Your task to perform on an android device: Search for razer nari on amazon, select the first entry, and add it to the cart. Image 0: 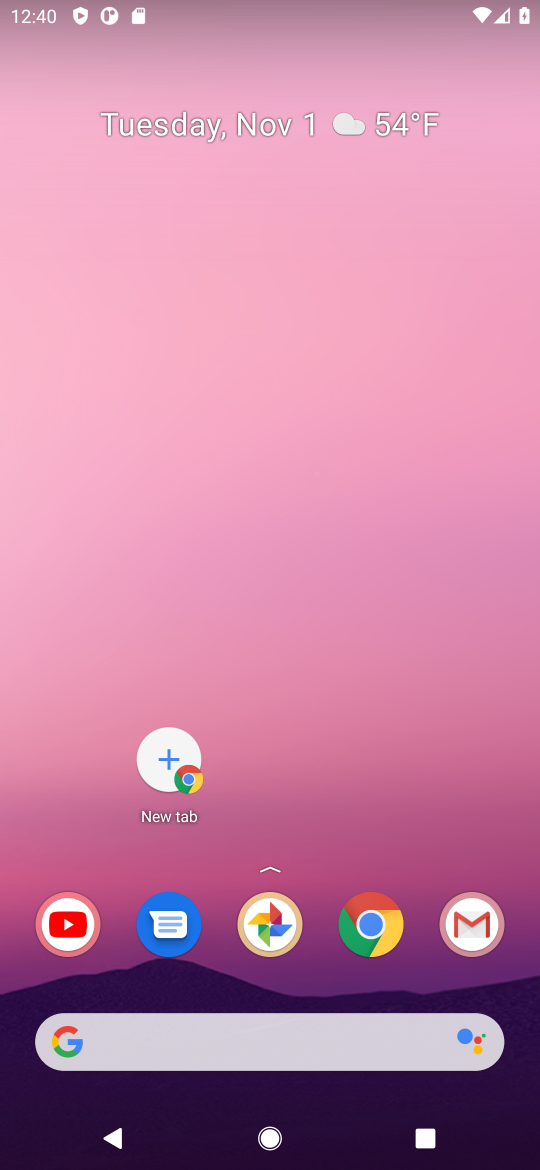
Step 0: click (364, 935)
Your task to perform on an android device: Search for razer nari on amazon, select the first entry, and add it to the cart. Image 1: 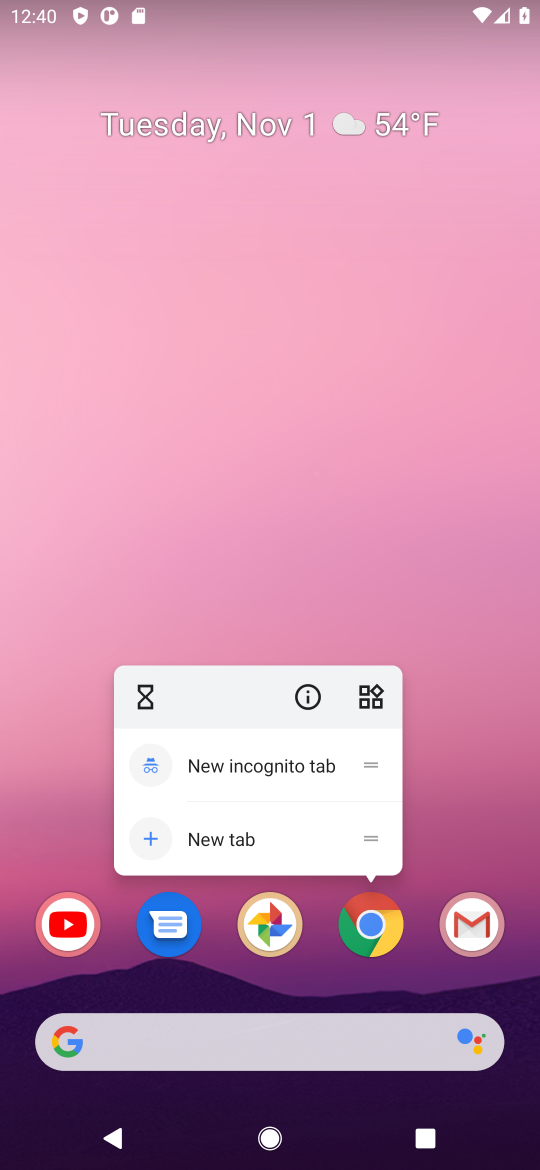
Step 1: click (364, 935)
Your task to perform on an android device: Search for razer nari on amazon, select the first entry, and add it to the cart. Image 2: 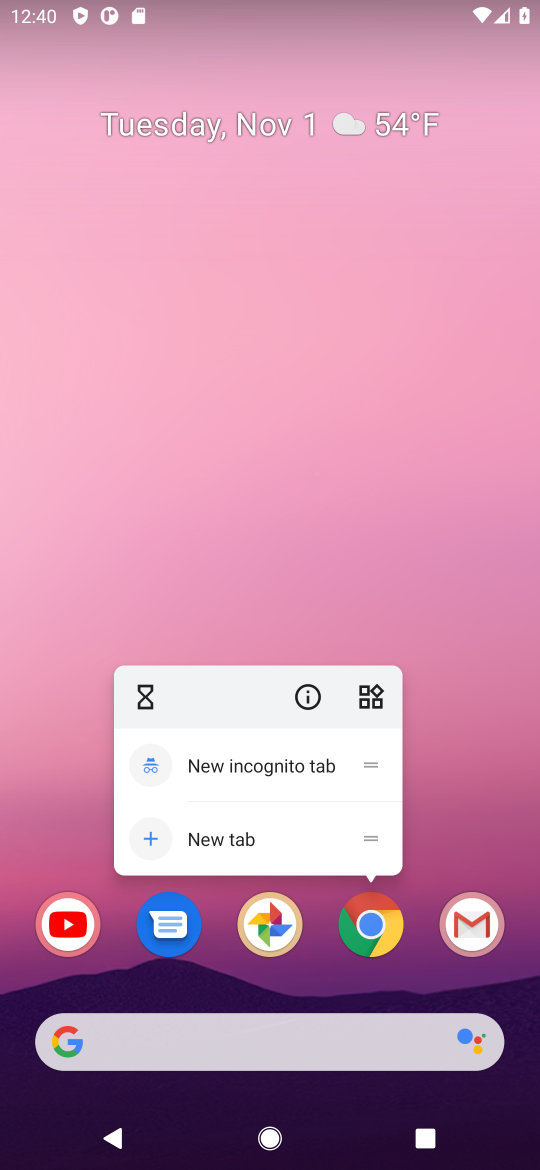
Step 2: click (367, 935)
Your task to perform on an android device: Search for razer nari on amazon, select the first entry, and add it to the cart. Image 3: 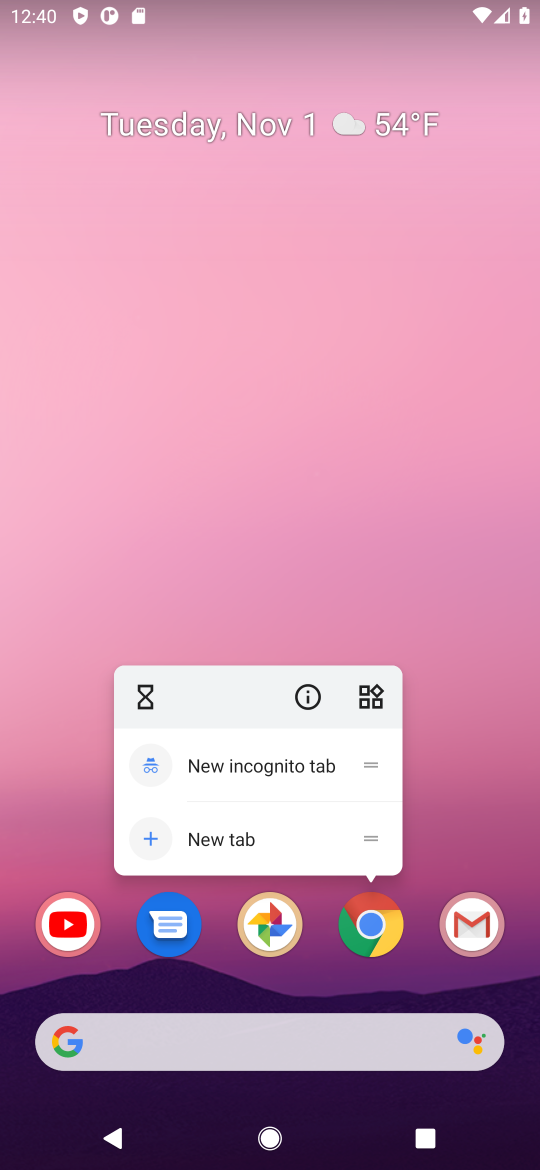
Step 3: click (370, 938)
Your task to perform on an android device: Search for razer nari on amazon, select the first entry, and add it to the cart. Image 4: 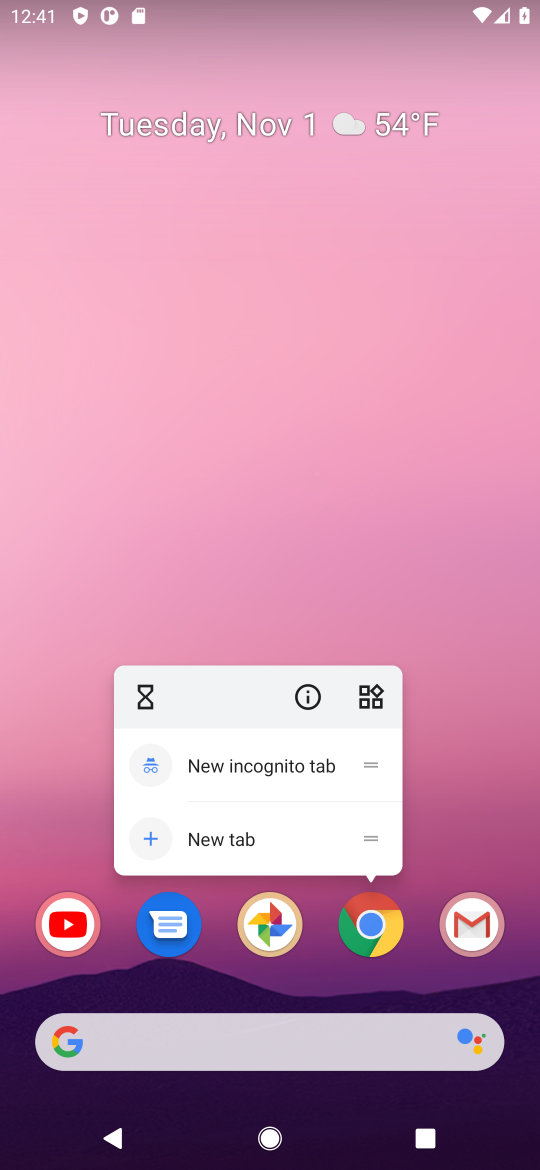
Step 4: click (370, 938)
Your task to perform on an android device: Search for razer nari on amazon, select the first entry, and add it to the cart. Image 5: 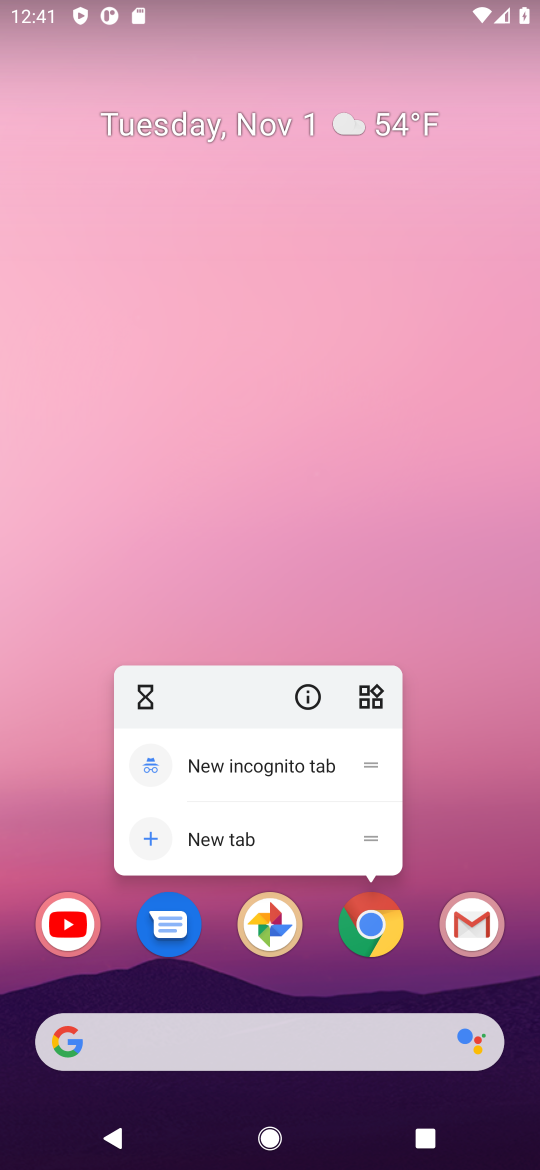
Step 5: click (368, 938)
Your task to perform on an android device: Search for razer nari on amazon, select the first entry, and add it to the cart. Image 6: 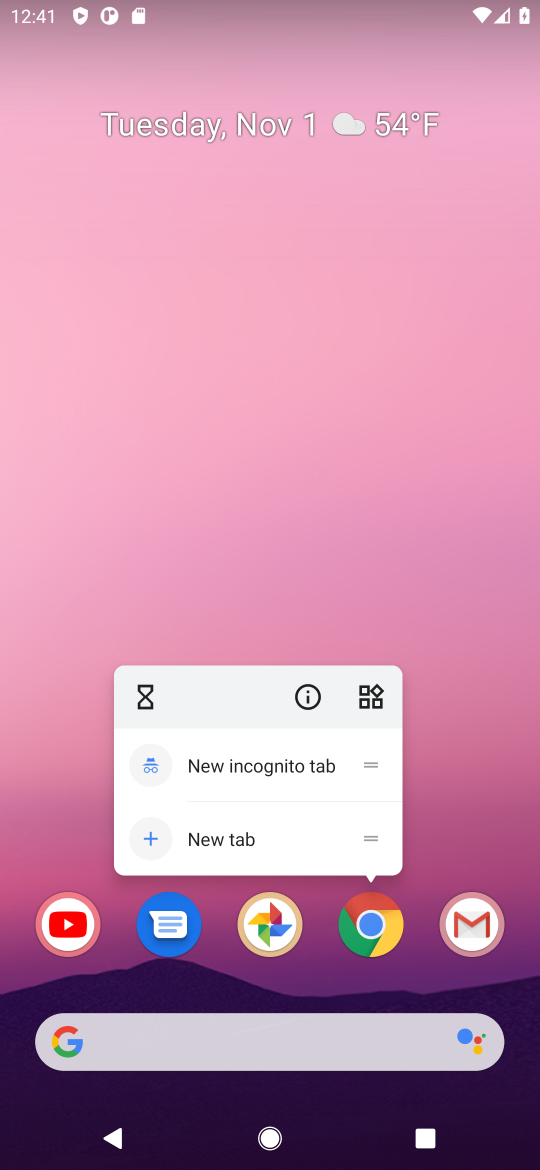
Step 6: click (368, 924)
Your task to perform on an android device: Search for razer nari on amazon, select the first entry, and add it to the cart. Image 7: 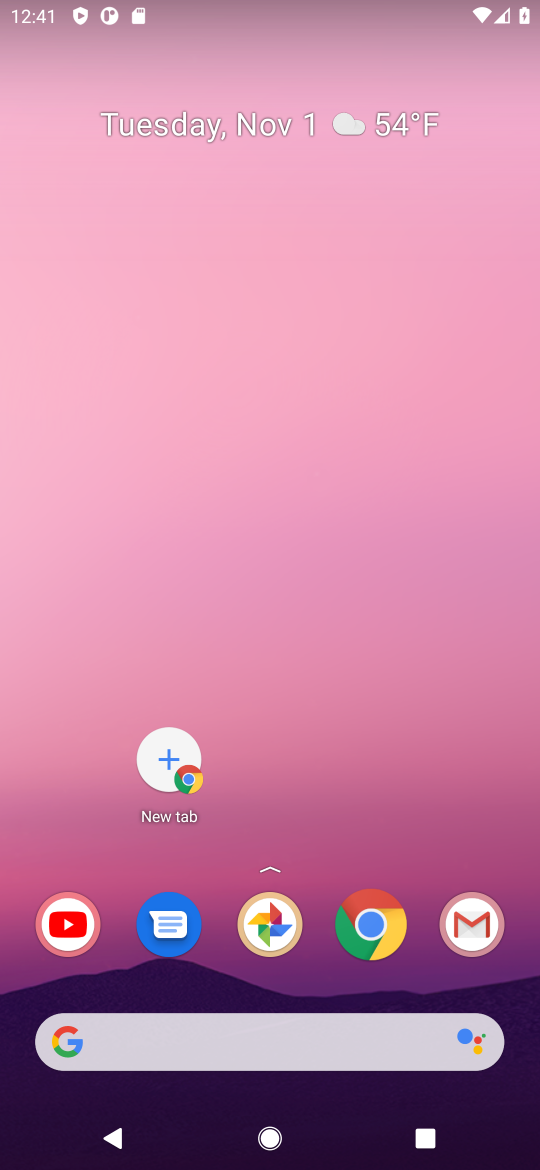
Step 7: click (368, 924)
Your task to perform on an android device: Search for razer nari on amazon, select the first entry, and add it to the cart. Image 8: 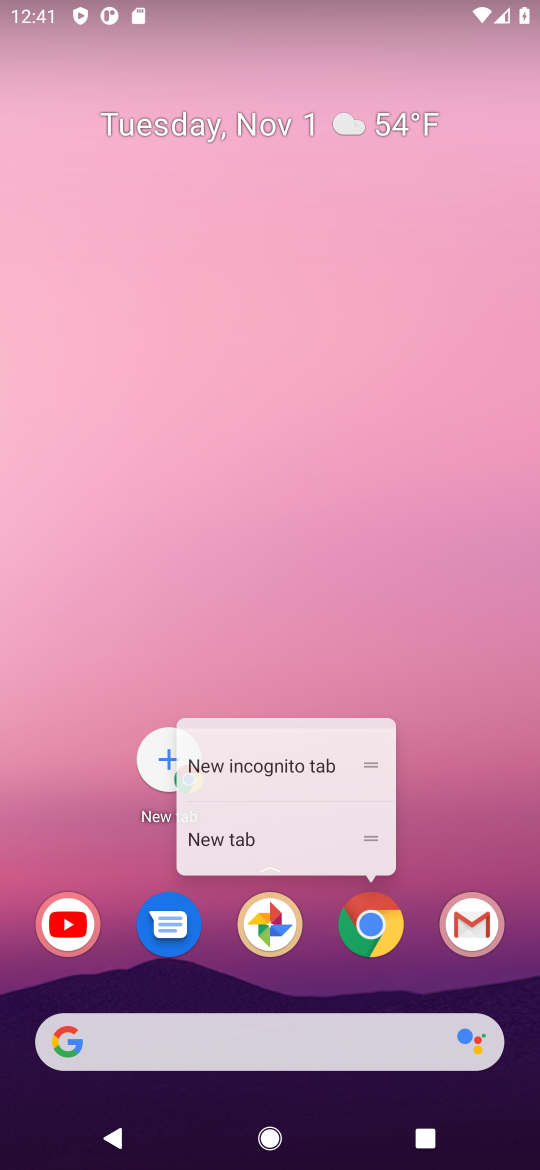
Step 8: click (370, 926)
Your task to perform on an android device: Search for razer nari on amazon, select the first entry, and add it to the cart. Image 9: 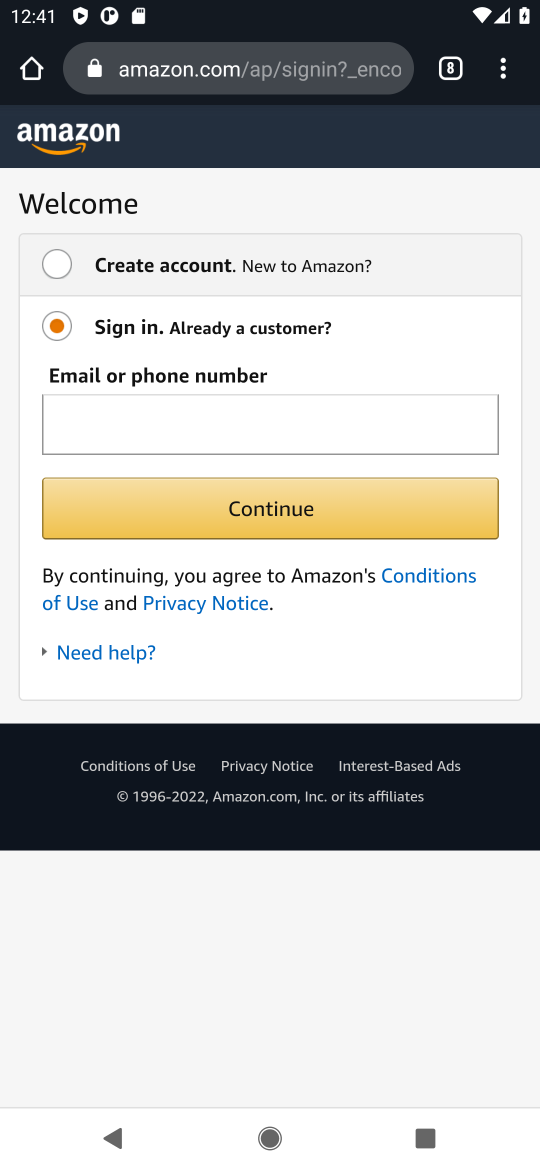
Step 9: click (310, 67)
Your task to perform on an android device: Search for razer nari on amazon, select the first entry, and add it to the cart. Image 10: 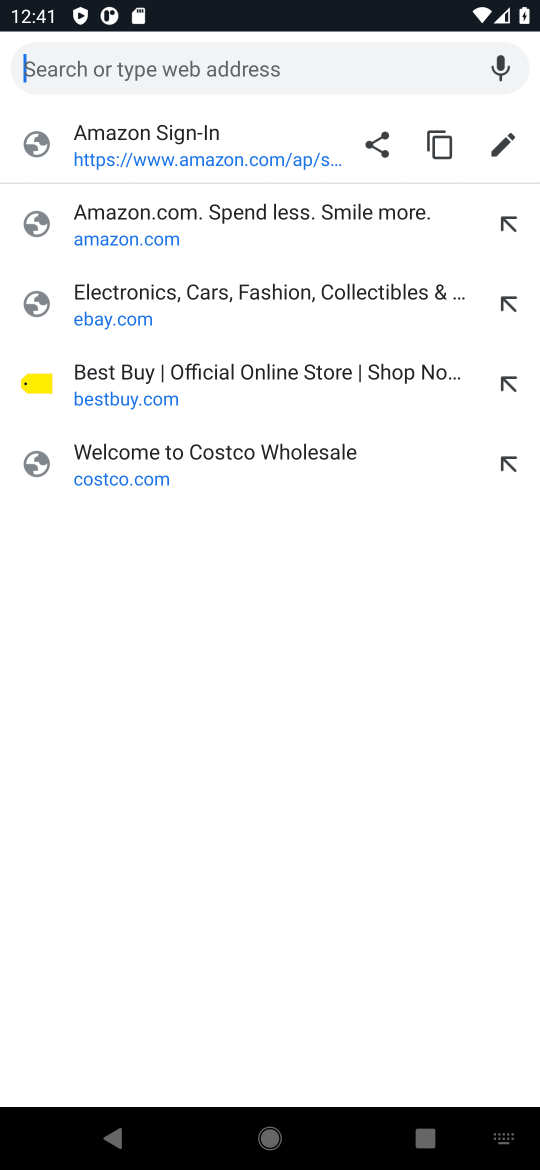
Step 10: type "razer nari"
Your task to perform on an android device: Search for razer nari on amazon, select the first entry, and add it to the cart. Image 11: 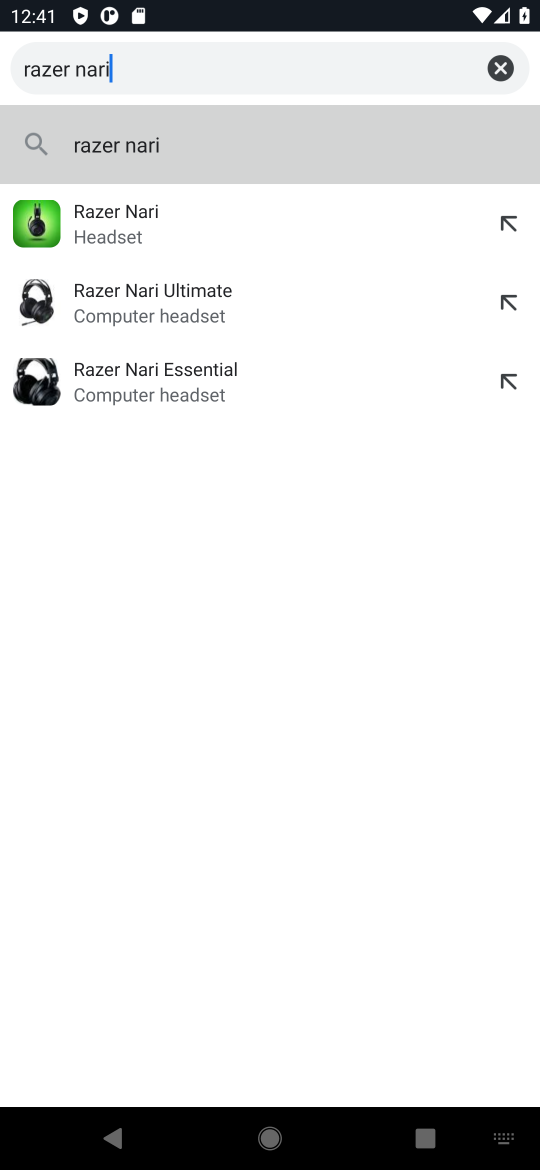
Step 11: click (112, 219)
Your task to perform on an android device: Search for razer nari on amazon, select the first entry, and add it to the cart. Image 12: 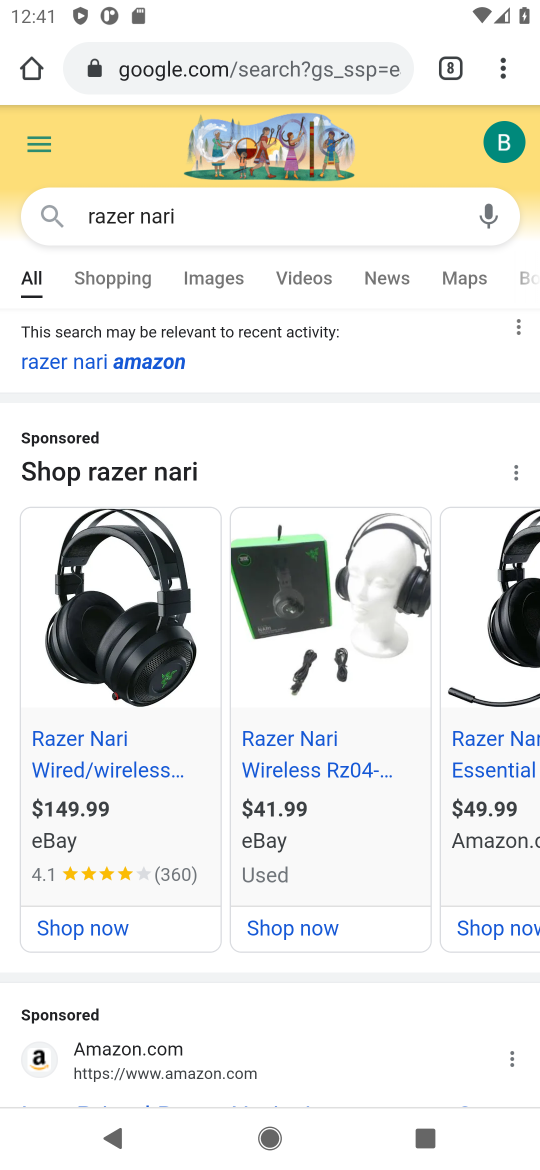
Step 12: drag from (162, 788) to (174, 501)
Your task to perform on an android device: Search for razer nari on amazon, select the first entry, and add it to the cart. Image 13: 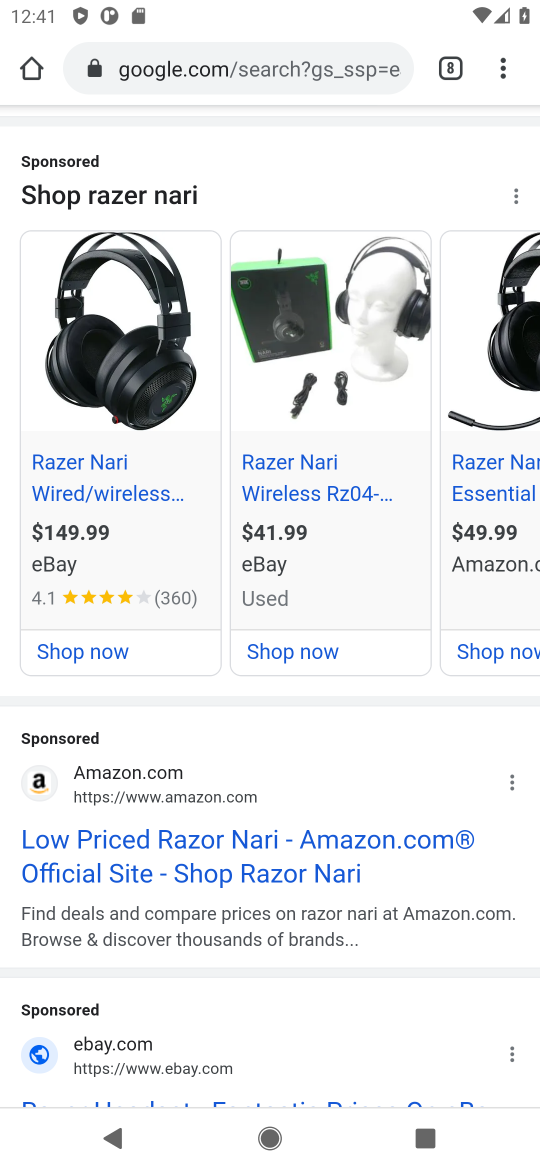
Step 13: drag from (195, 873) to (217, 630)
Your task to perform on an android device: Search for razer nari on amazon, select the first entry, and add it to the cart. Image 14: 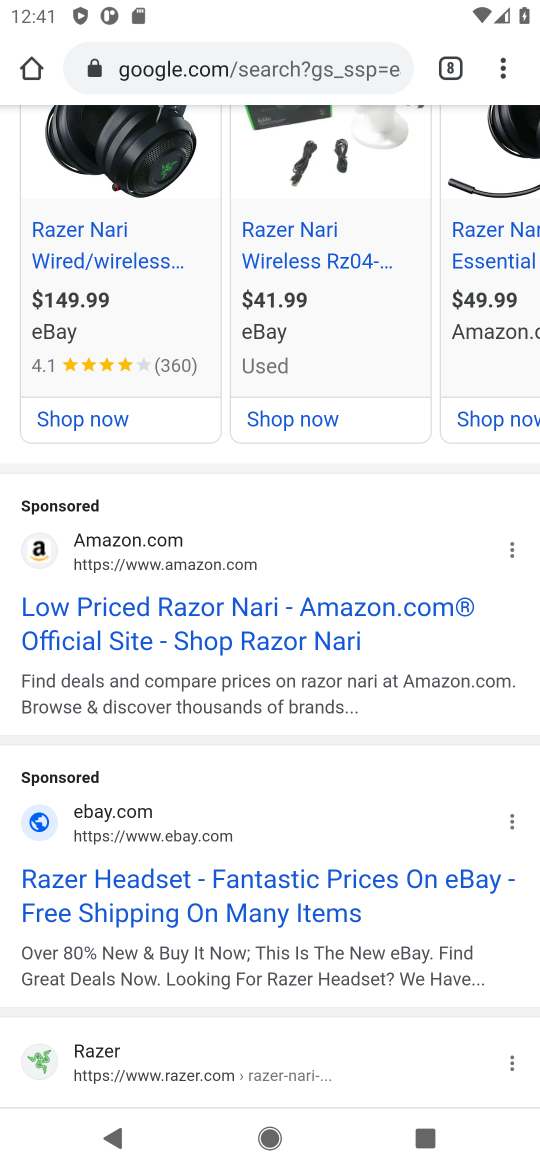
Step 14: click (182, 608)
Your task to perform on an android device: Search for razer nari on amazon, select the first entry, and add it to the cart. Image 15: 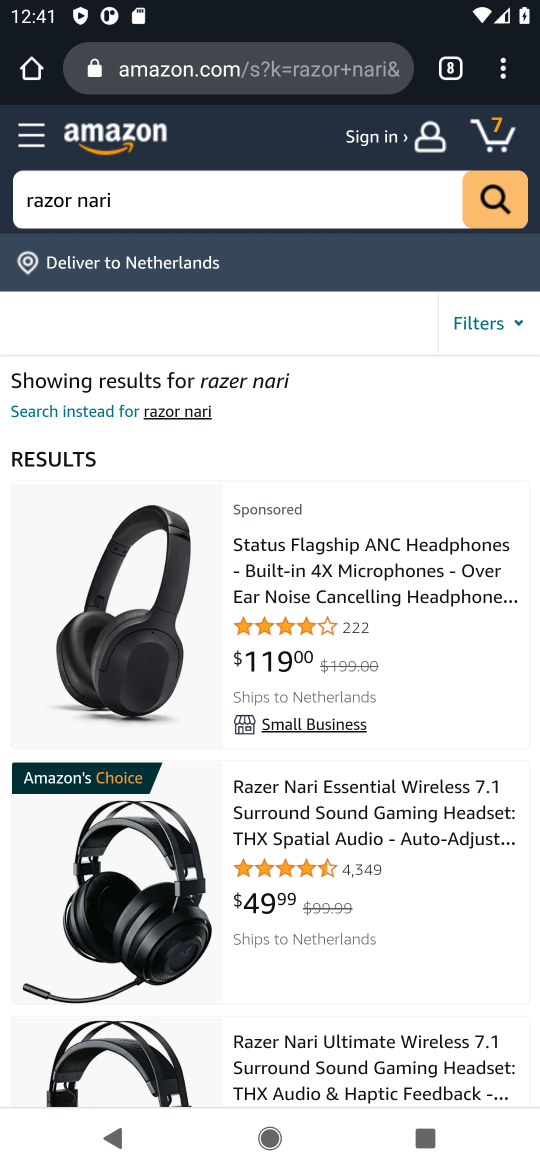
Step 15: click (115, 873)
Your task to perform on an android device: Search for razer nari on amazon, select the first entry, and add it to the cart. Image 16: 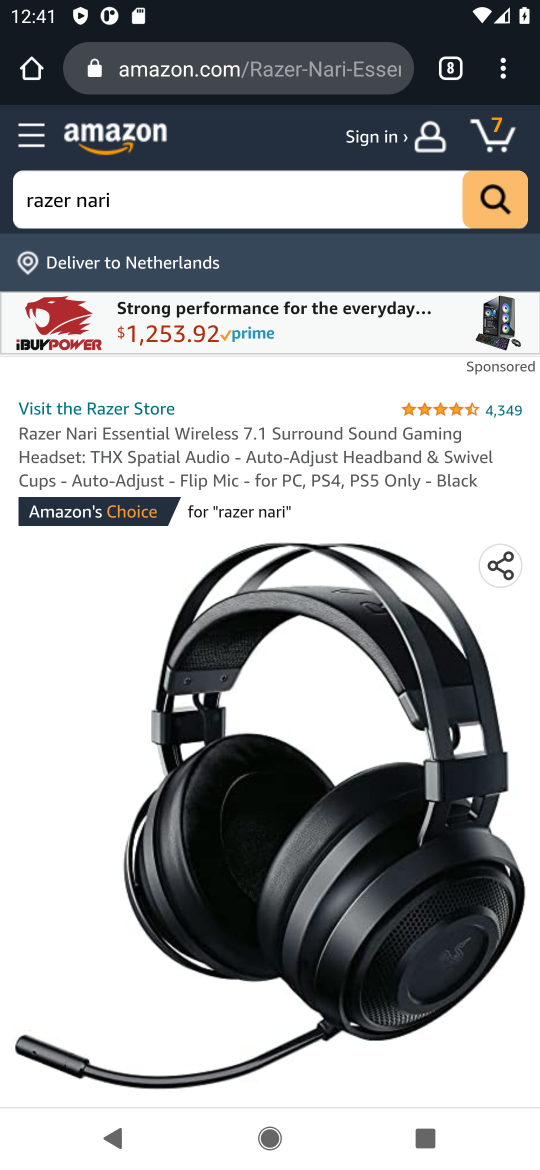
Step 16: drag from (157, 940) to (135, 534)
Your task to perform on an android device: Search for razer nari on amazon, select the first entry, and add it to the cart. Image 17: 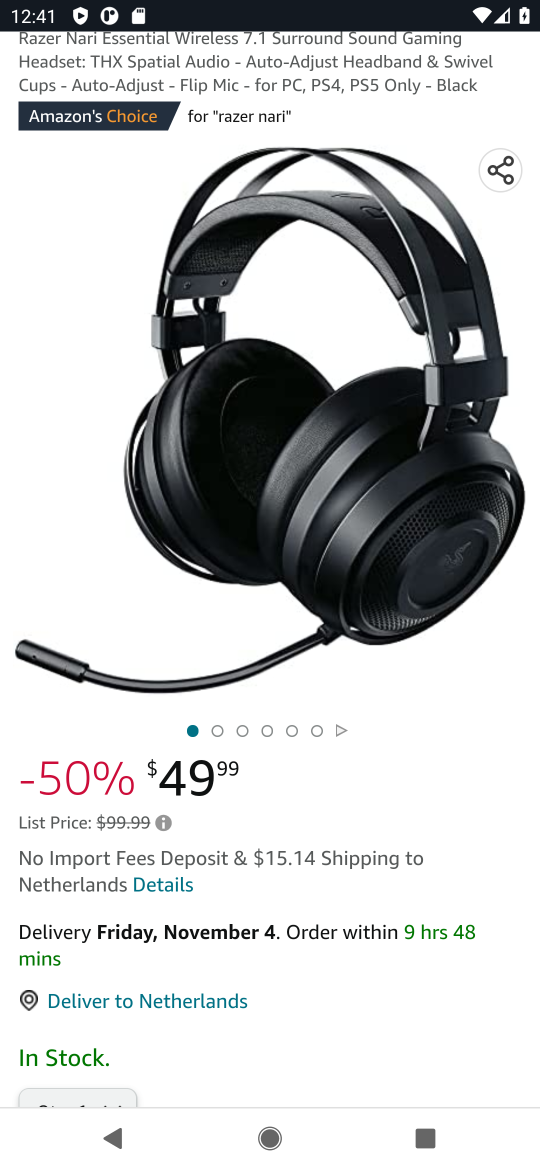
Step 17: drag from (270, 923) to (321, 418)
Your task to perform on an android device: Search for razer nari on amazon, select the first entry, and add it to the cart. Image 18: 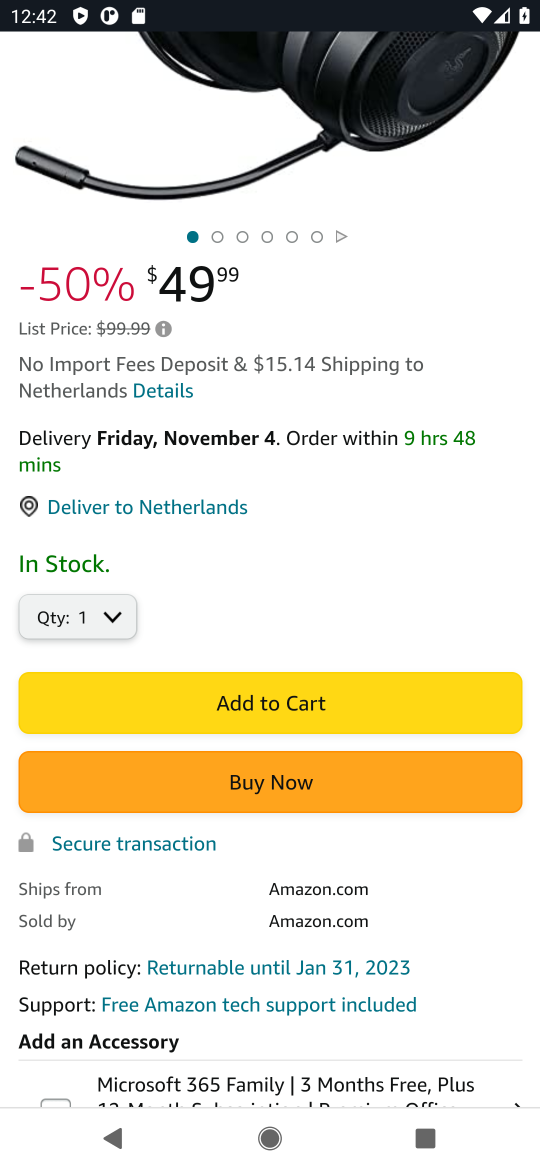
Step 18: click (326, 703)
Your task to perform on an android device: Search for razer nari on amazon, select the first entry, and add it to the cart. Image 19: 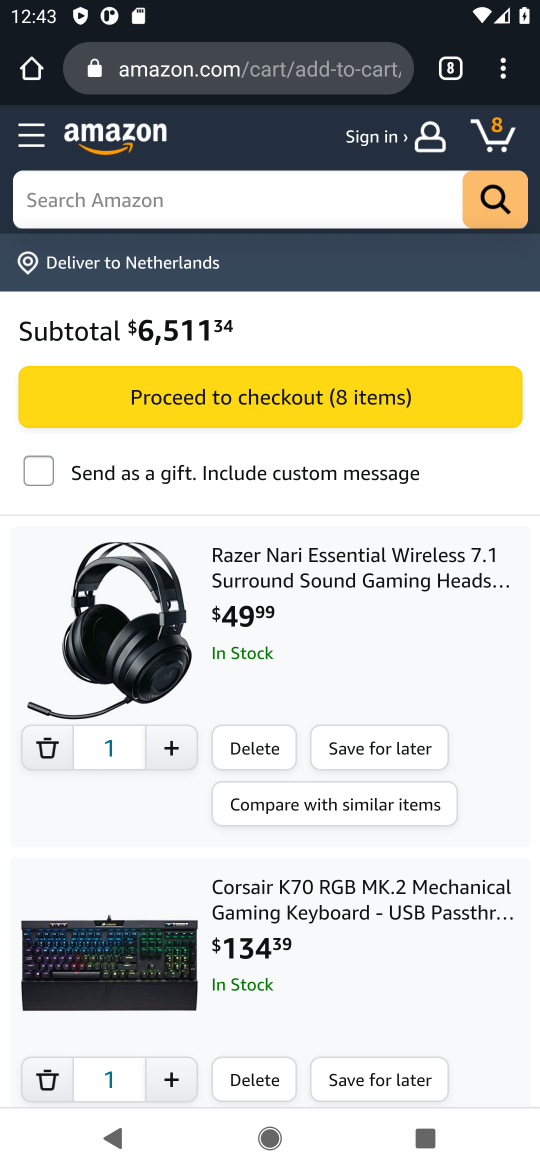
Step 19: task complete